Your task to perform on an android device: change the clock display to digital Image 0: 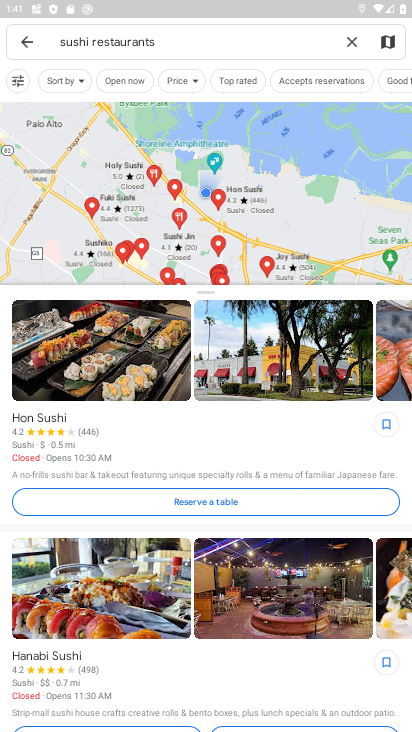
Step 0: press home button
Your task to perform on an android device: change the clock display to digital Image 1: 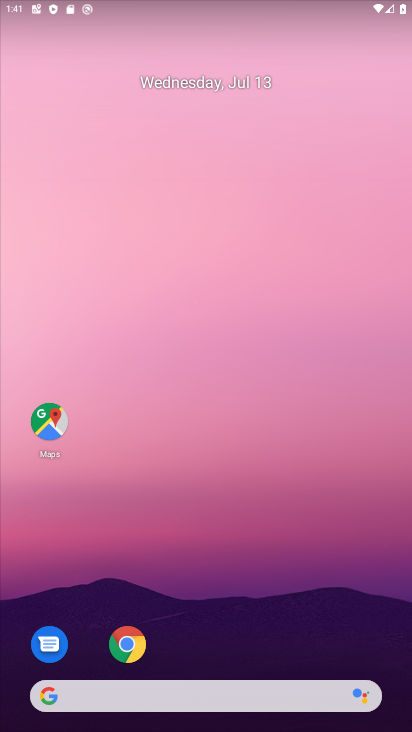
Step 1: drag from (218, 574) to (223, 41)
Your task to perform on an android device: change the clock display to digital Image 2: 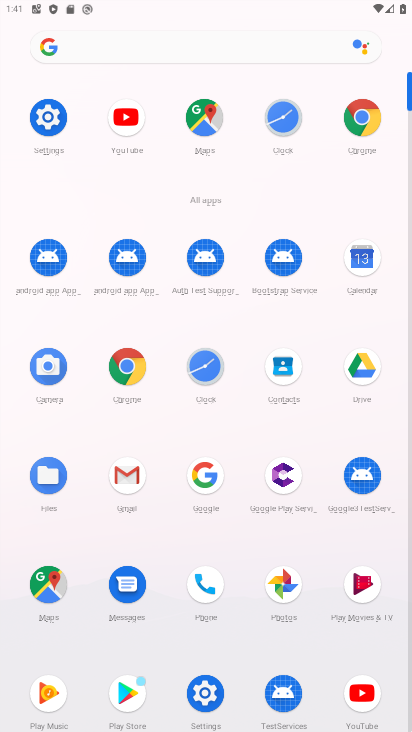
Step 2: click (297, 111)
Your task to perform on an android device: change the clock display to digital Image 3: 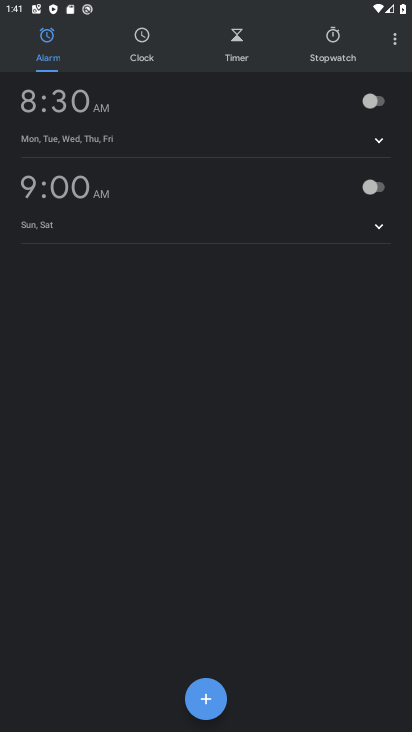
Step 3: click (379, 45)
Your task to perform on an android device: change the clock display to digital Image 4: 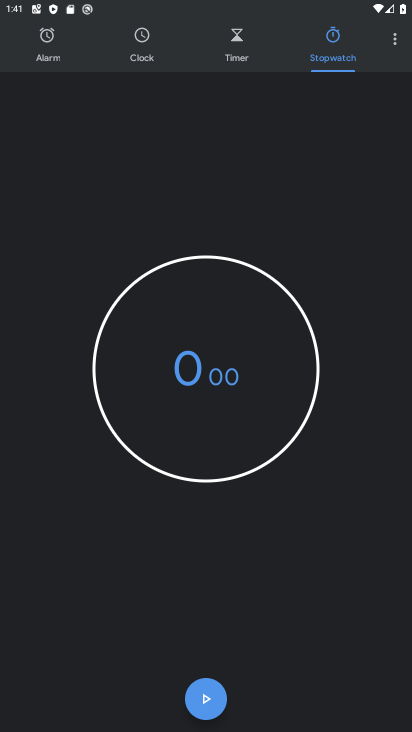
Step 4: click (382, 45)
Your task to perform on an android device: change the clock display to digital Image 5: 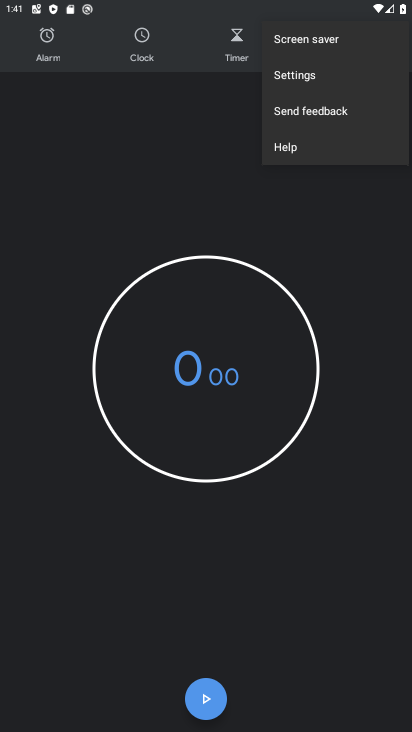
Step 5: click (359, 78)
Your task to perform on an android device: change the clock display to digital Image 6: 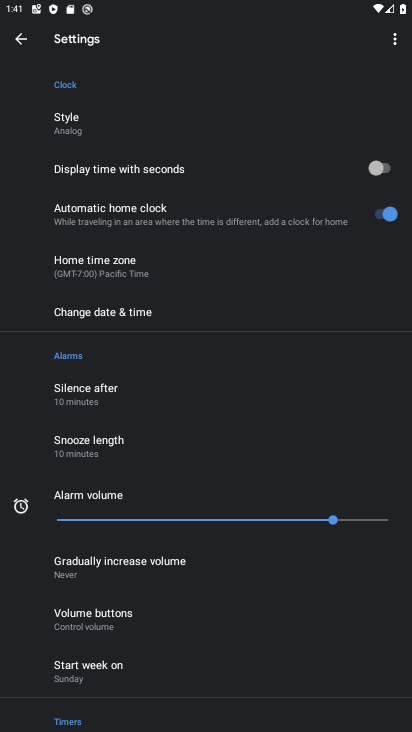
Step 6: click (67, 134)
Your task to perform on an android device: change the clock display to digital Image 7: 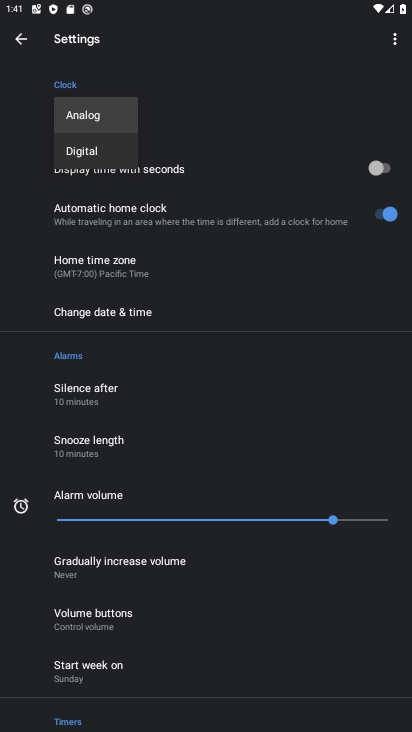
Step 7: click (78, 152)
Your task to perform on an android device: change the clock display to digital Image 8: 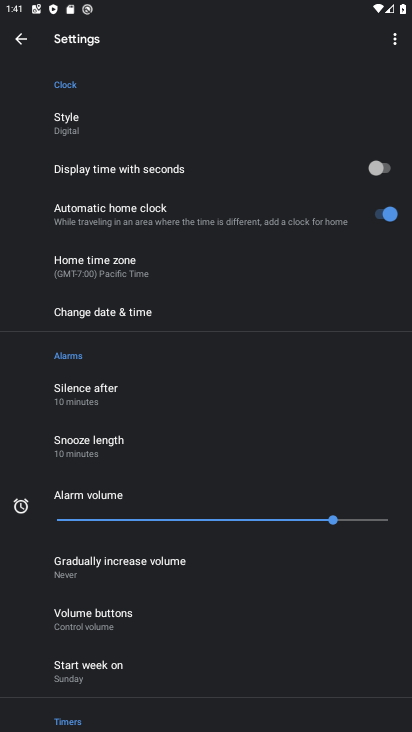
Step 8: task complete